Your task to perform on an android device: Open calendar and show me the third week of next month Image 0: 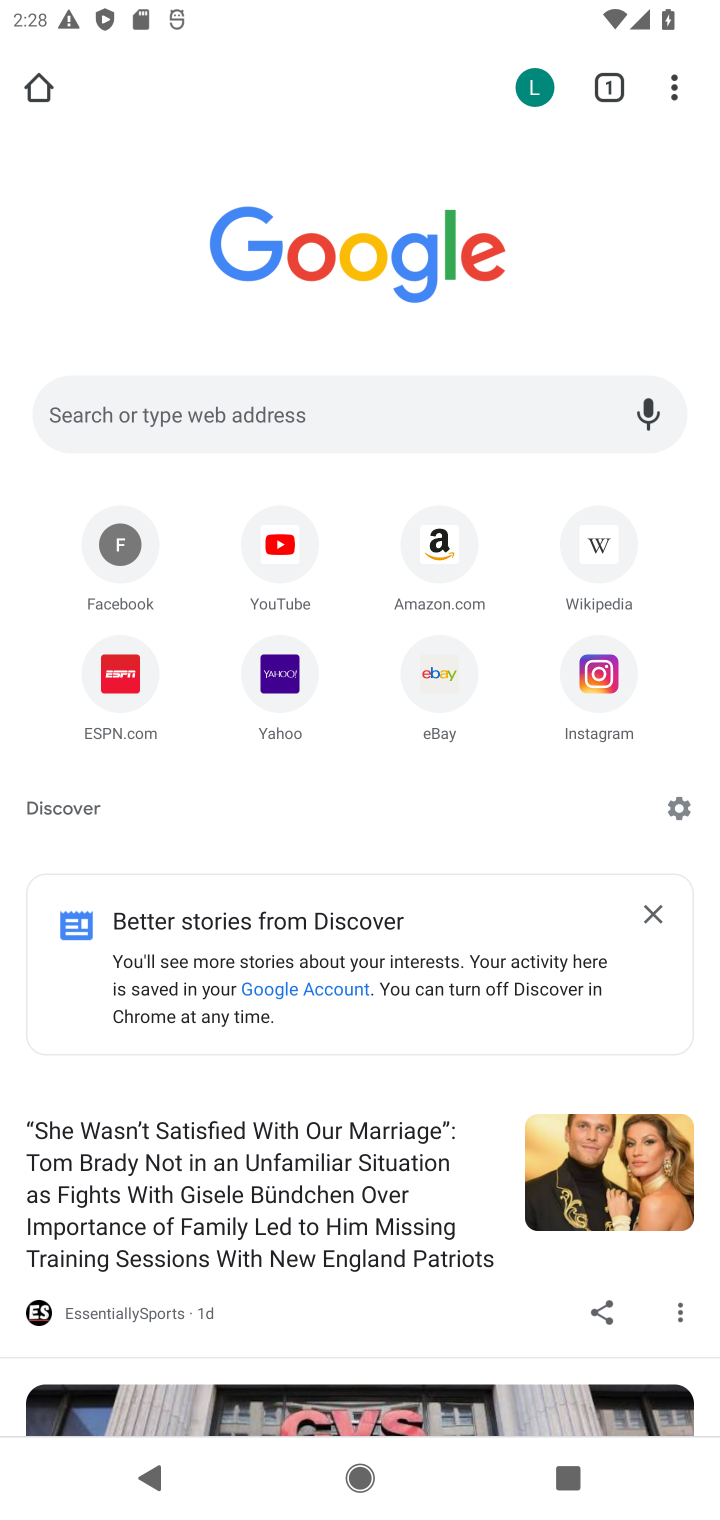
Step 0: press home button
Your task to perform on an android device: Open calendar and show me the third week of next month Image 1: 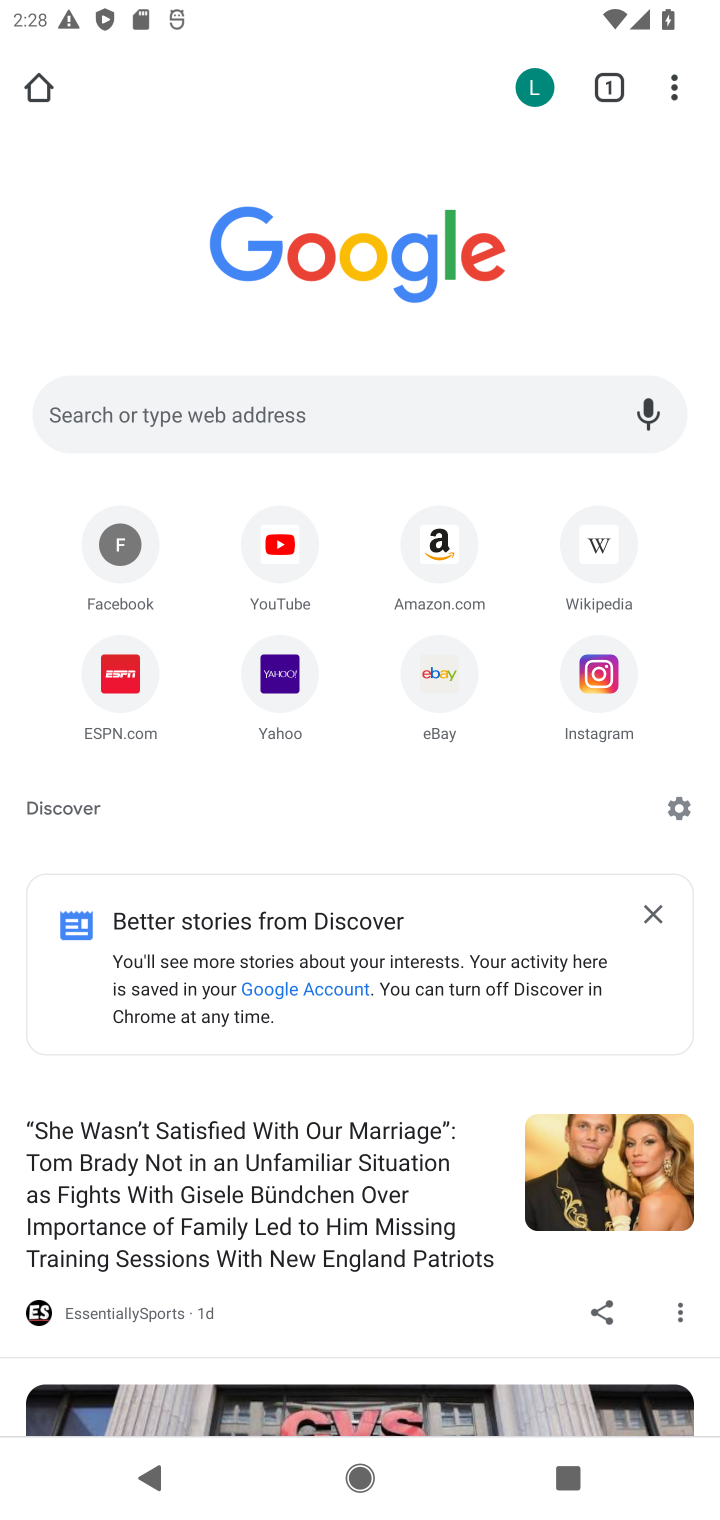
Step 1: press home button
Your task to perform on an android device: Open calendar and show me the third week of next month Image 2: 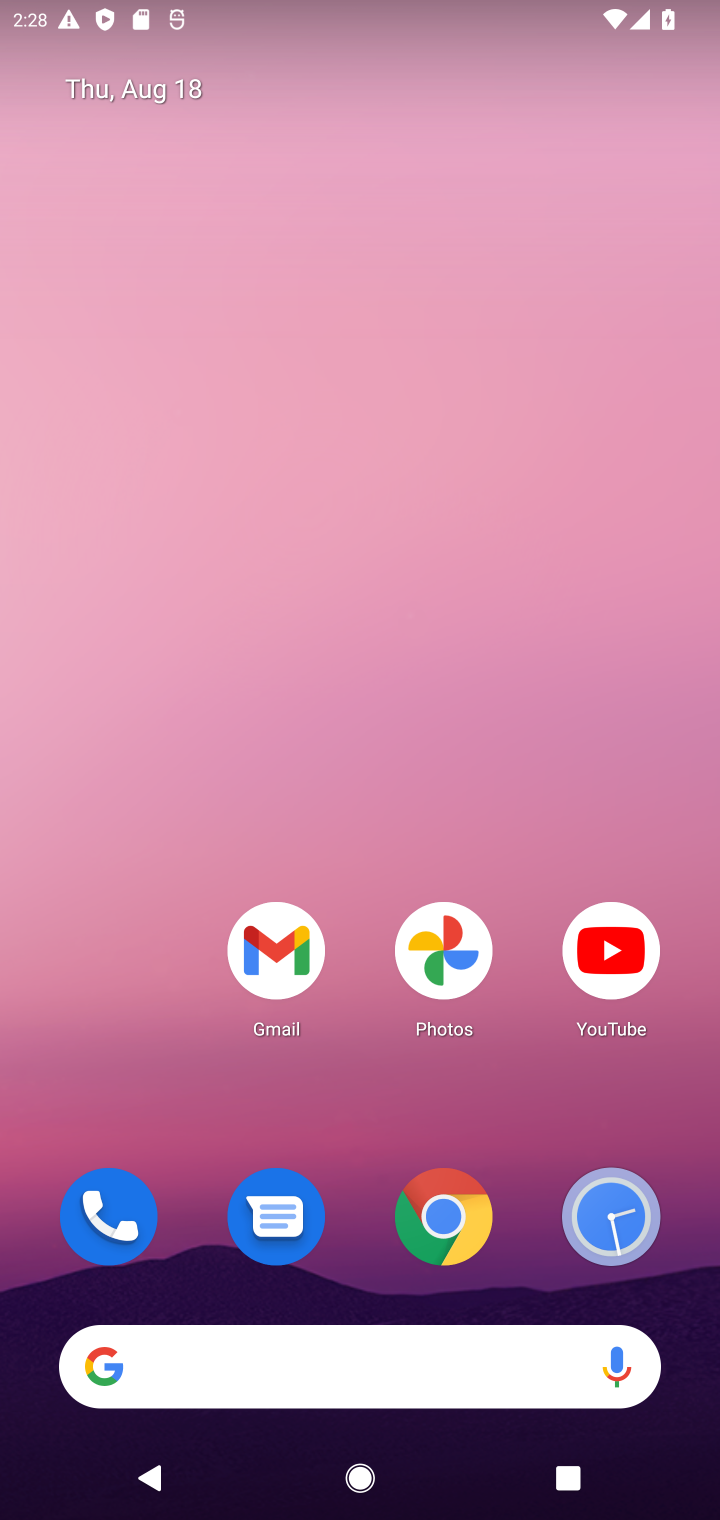
Step 2: drag from (162, 953) to (235, 80)
Your task to perform on an android device: Open calendar and show me the third week of next month Image 3: 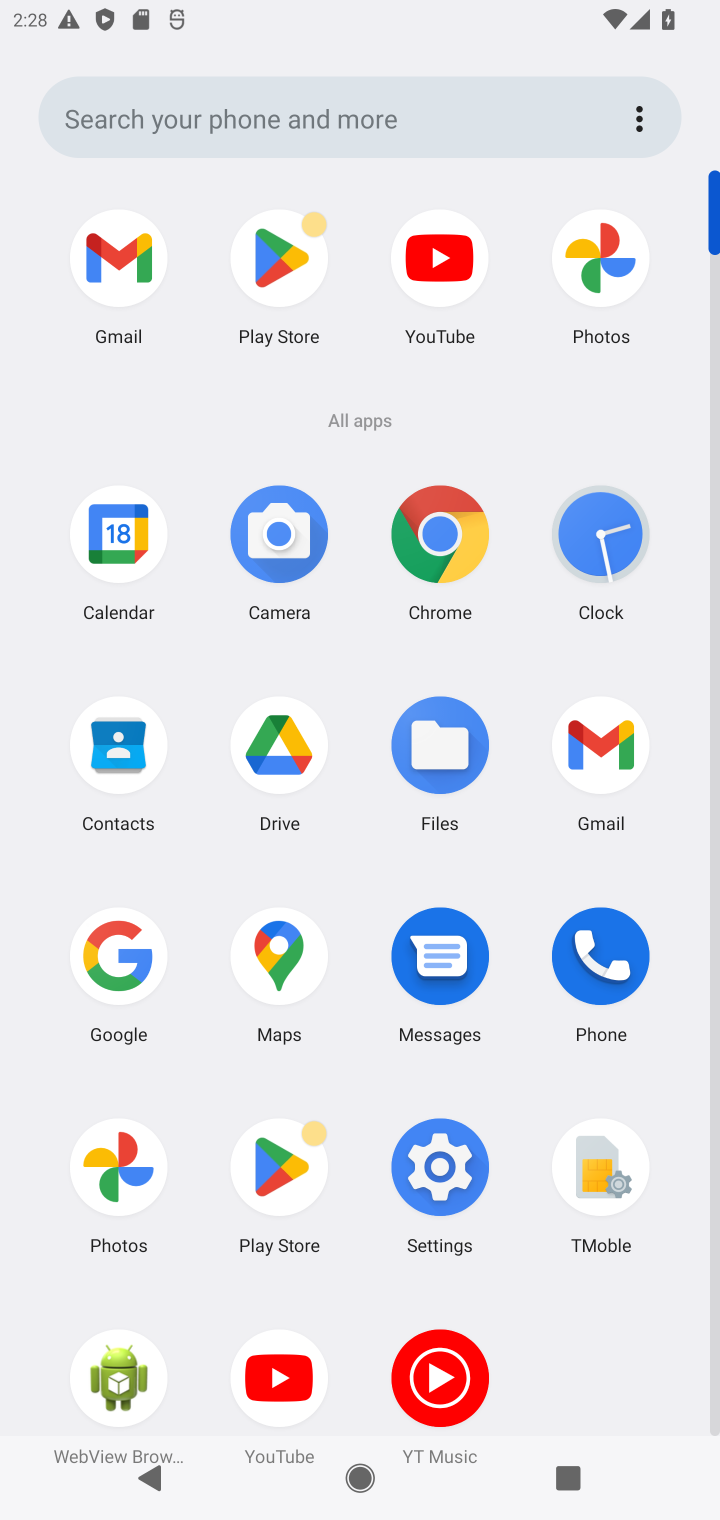
Step 3: click (126, 520)
Your task to perform on an android device: Open calendar and show me the third week of next month Image 4: 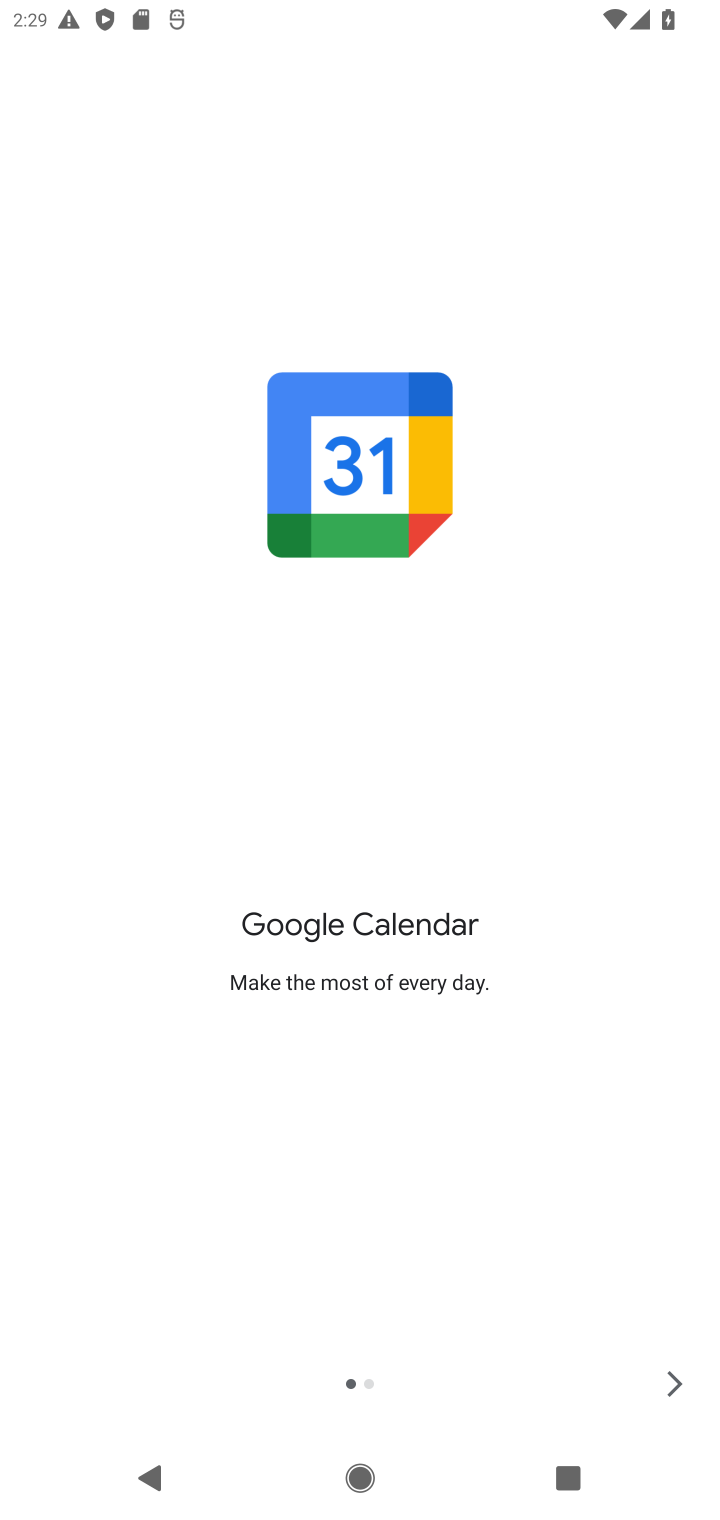
Step 4: click (676, 1378)
Your task to perform on an android device: Open calendar and show me the third week of next month Image 5: 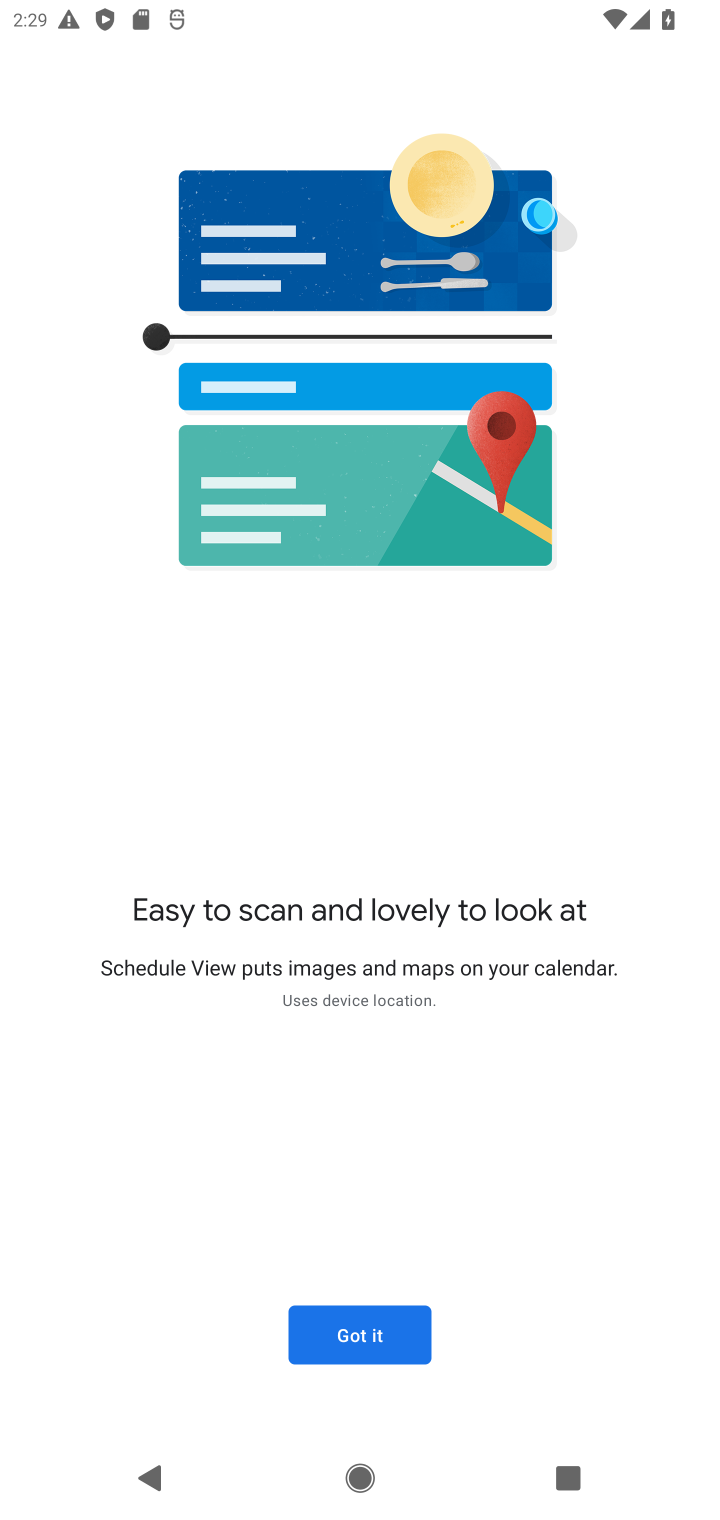
Step 5: click (409, 1333)
Your task to perform on an android device: Open calendar and show me the third week of next month Image 6: 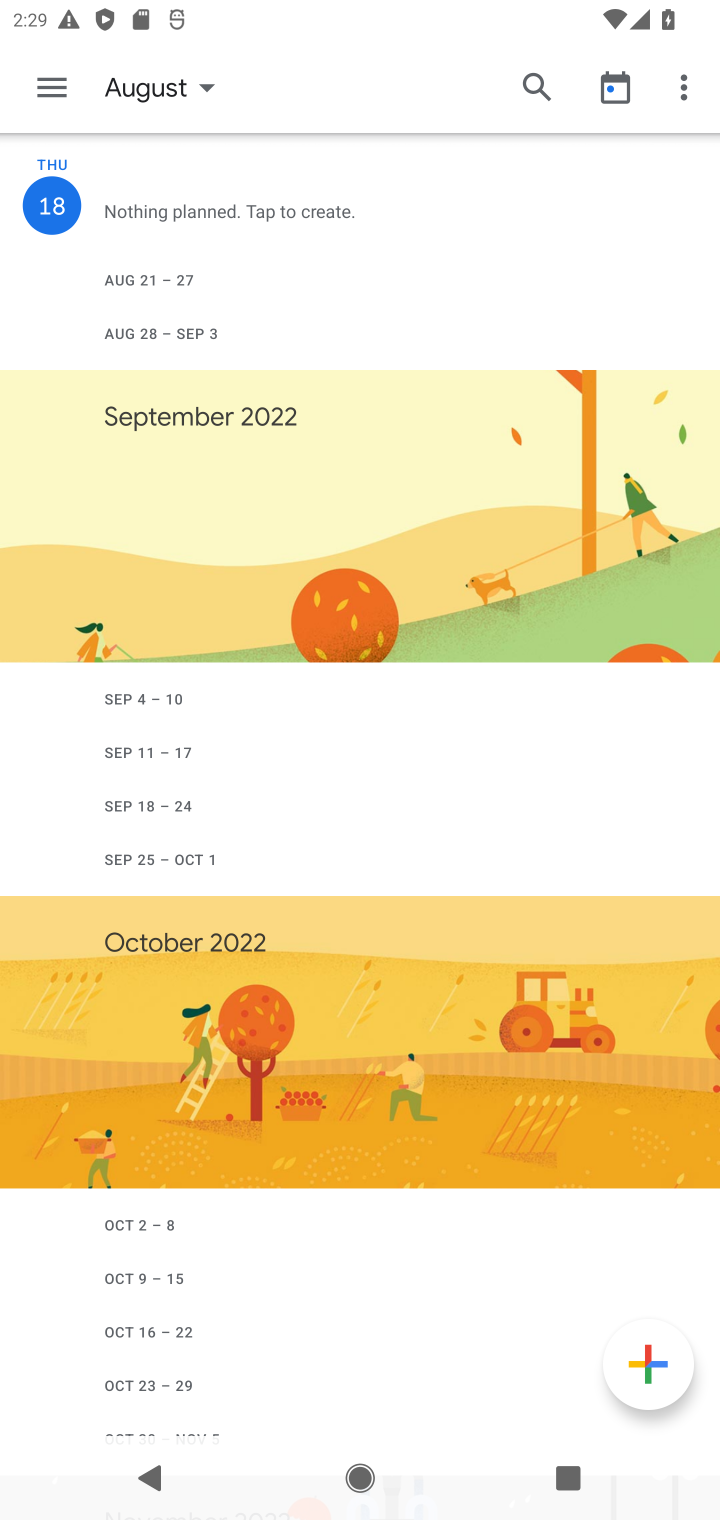
Step 6: click (57, 91)
Your task to perform on an android device: Open calendar and show me the third week of next month Image 7: 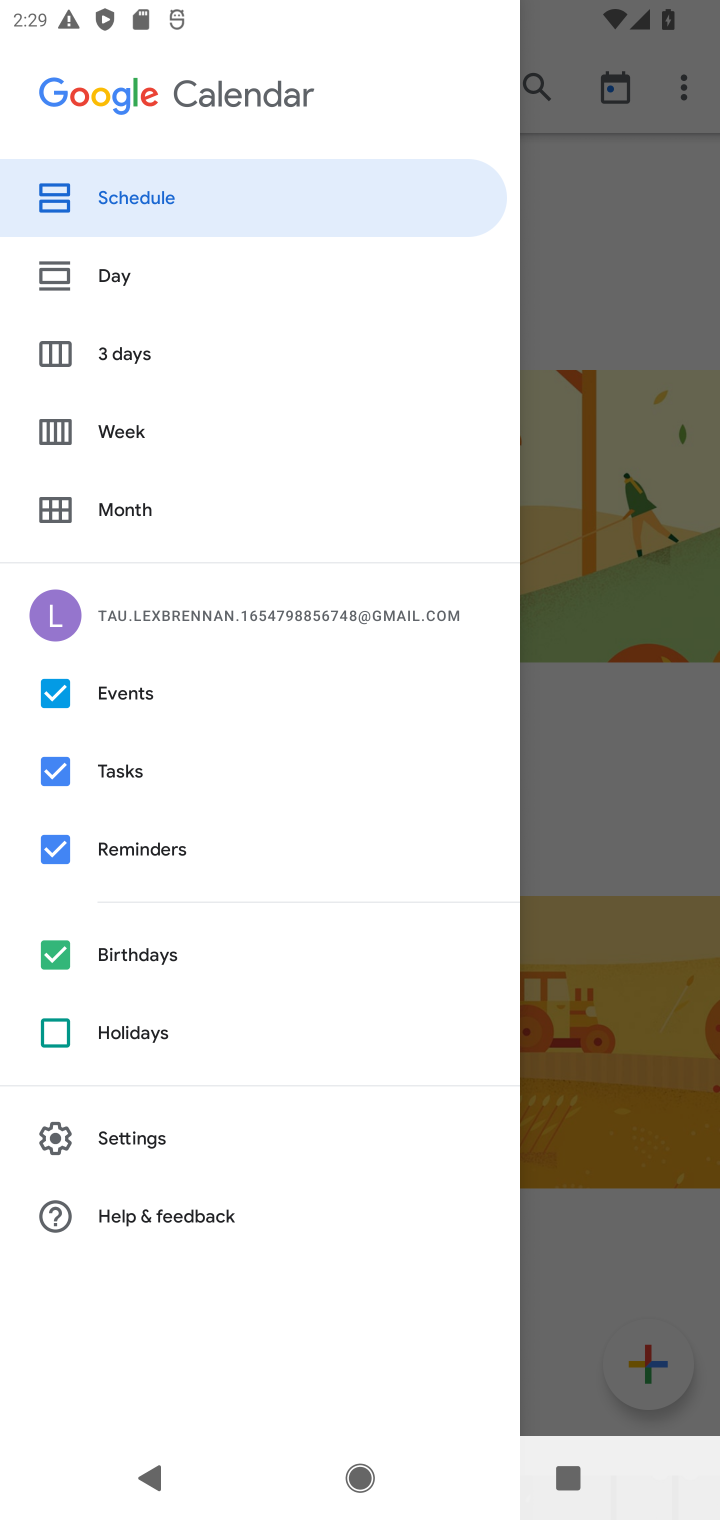
Step 7: click (52, 514)
Your task to perform on an android device: Open calendar and show me the third week of next month Image 8: 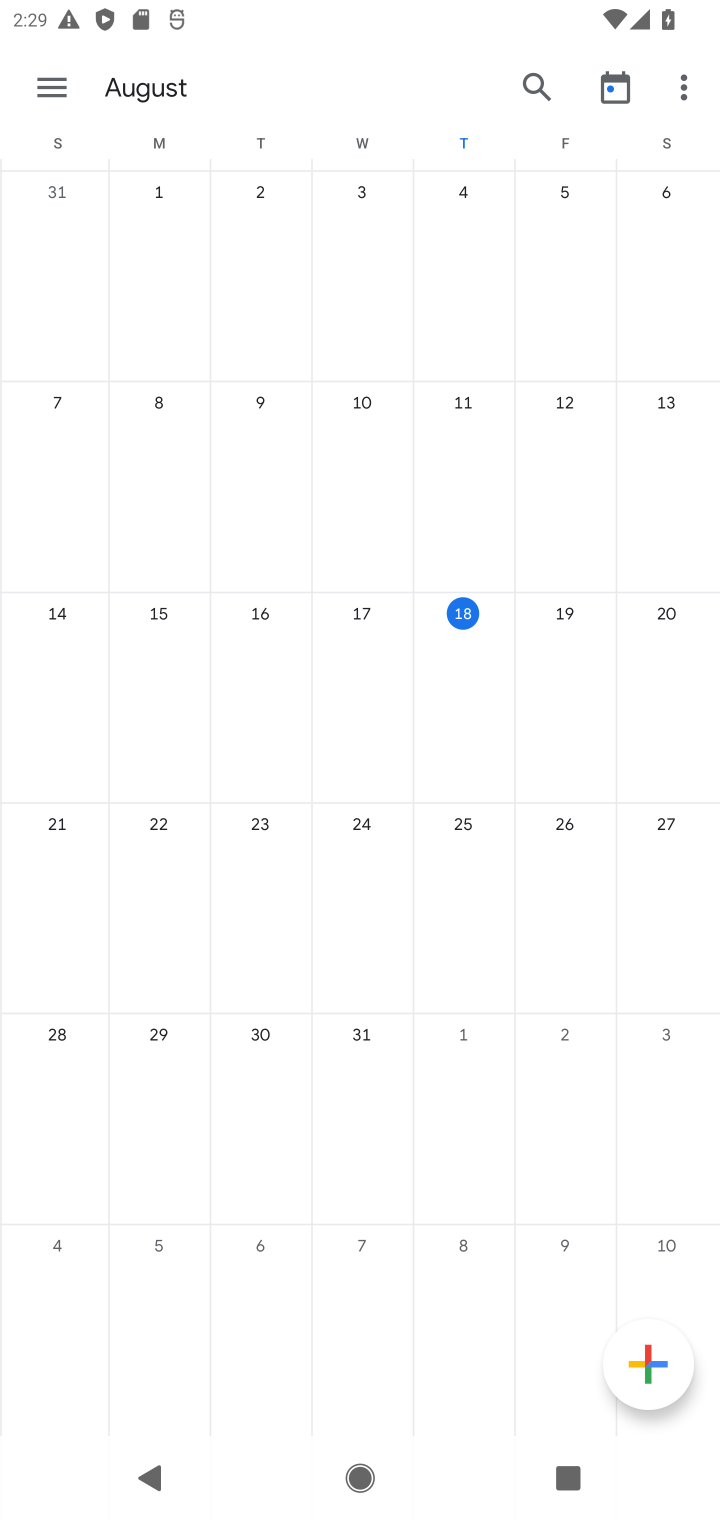
Step 8: drag from (602, 726) to (3, 831)
Your task to perform on an android device: Open calendar and show me the third week of next month Image 9: 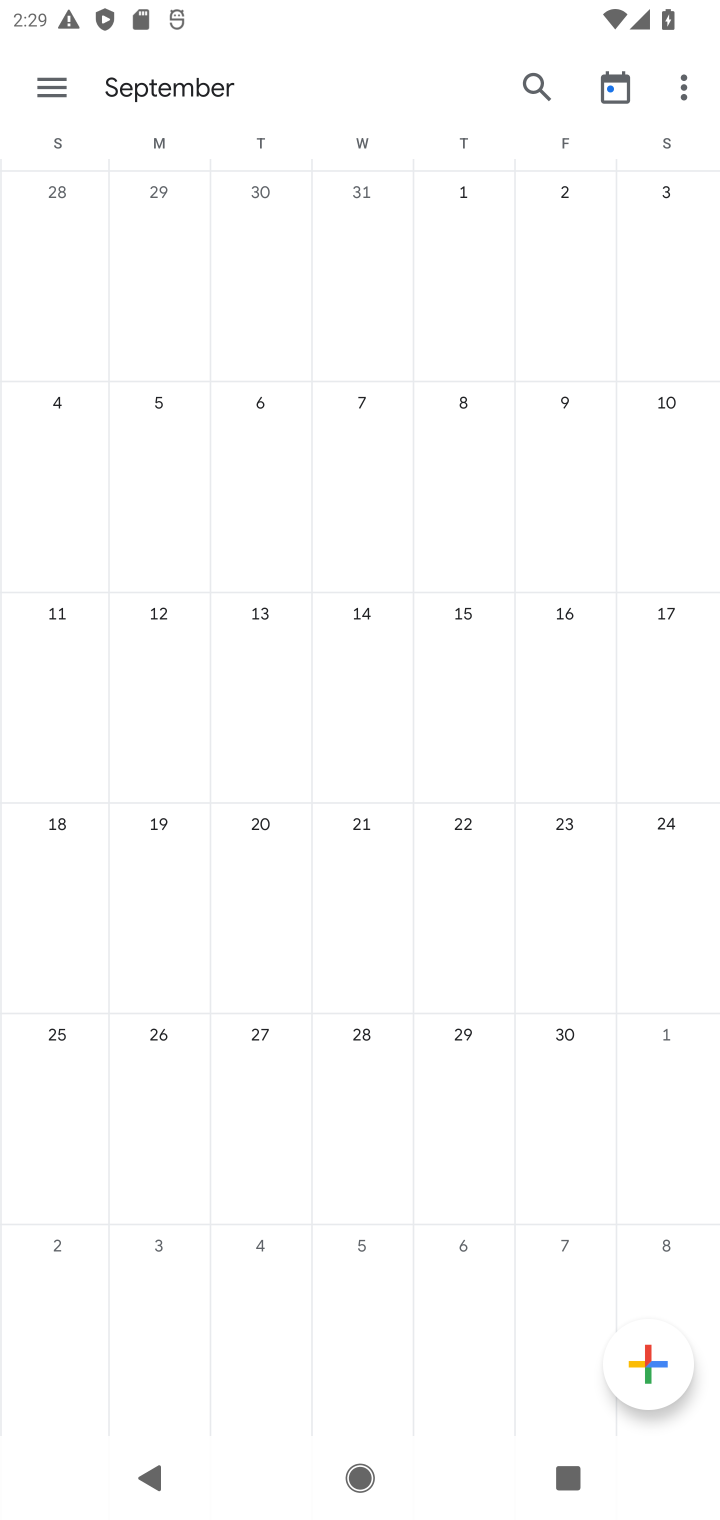
Step 9: click (56, 821)
Your task to perform on an android device: Open calendar and show me the third week of next month Image 10: 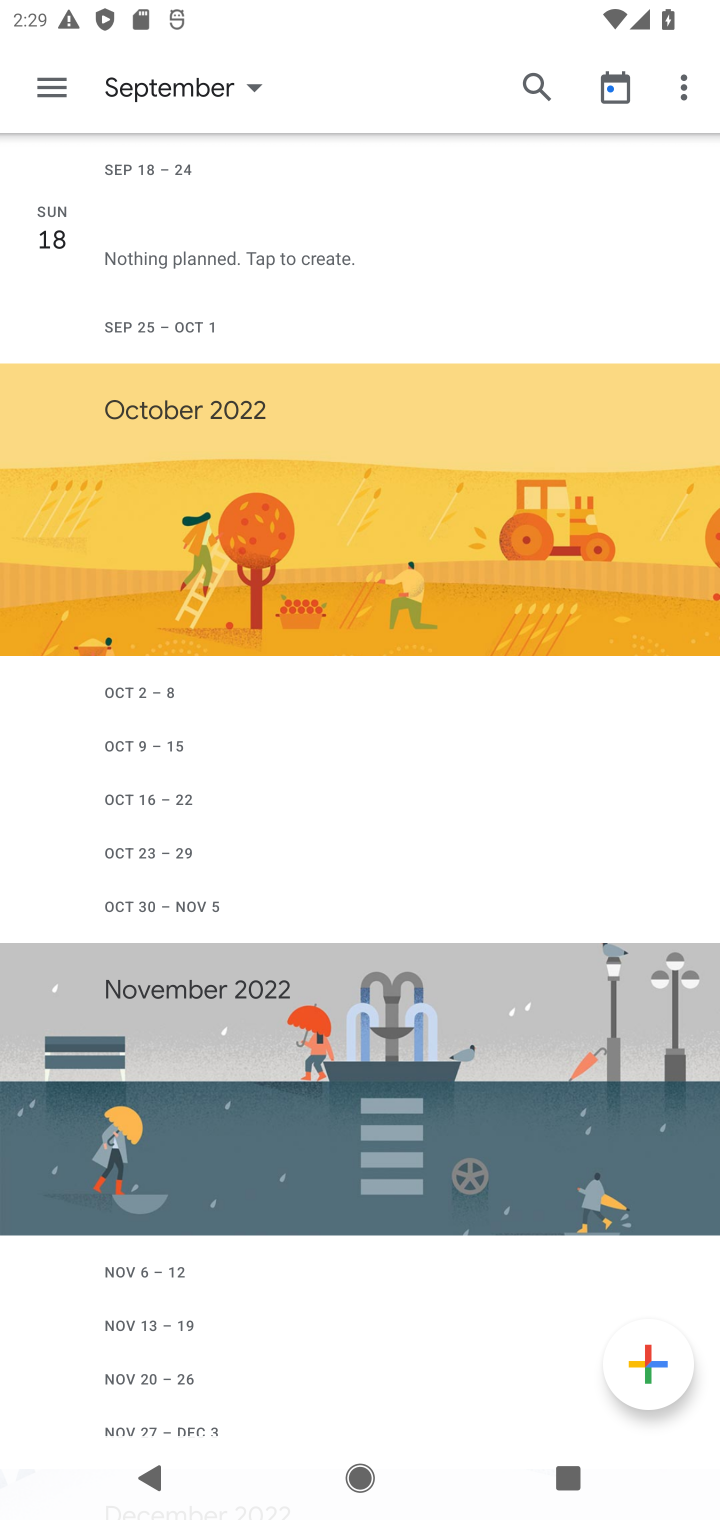
Step 10: task complete